Your task to perform on an android device: Open my contact list Image 0: 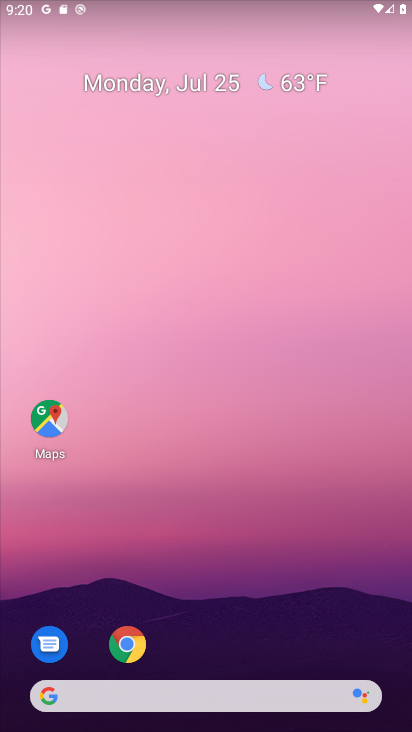
Step 0: drag from (136, 671) to (154, 208)
Your task to perform on an android device: Open my contact list Image 1: 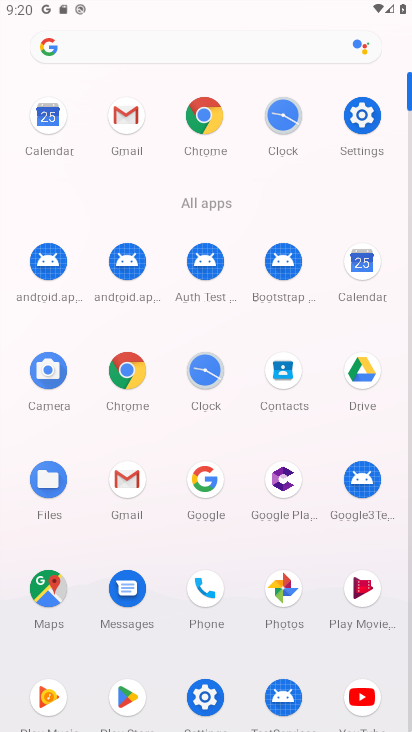
Step 1: click (281, 380)
Your task to perform on an android device: Open my contact list Image 2: 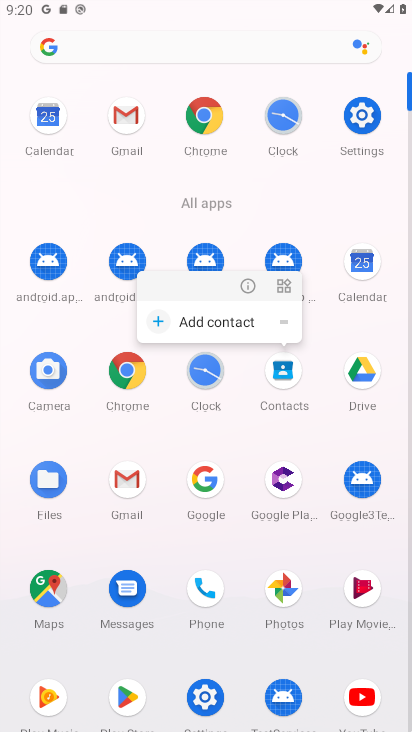
Step 2: click (290, 371)
Your task to perform on an android device: Open my contact list Image 3: 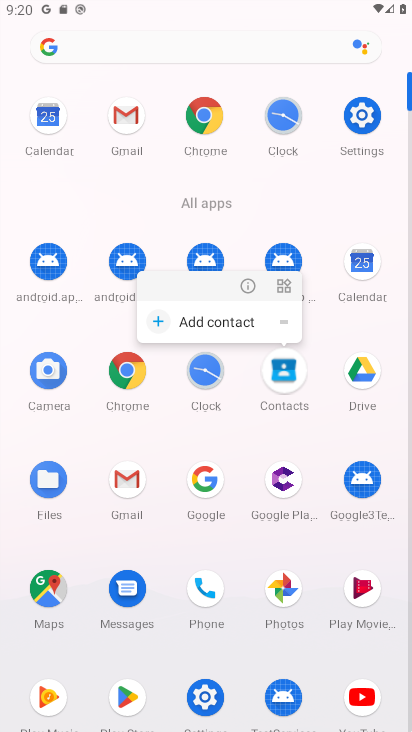
Step 3: click (290, 371)
Your task to perform on an android device: Open my contact list Image 4: 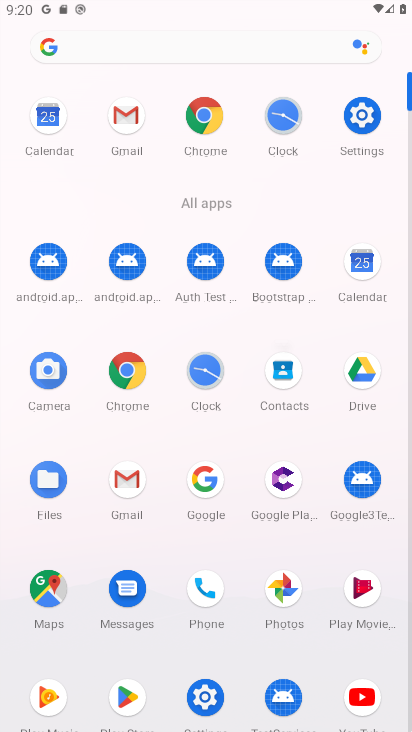
Step 4: click (290, 371)
Your task to perform on an android device: Open my contact list Image 5: 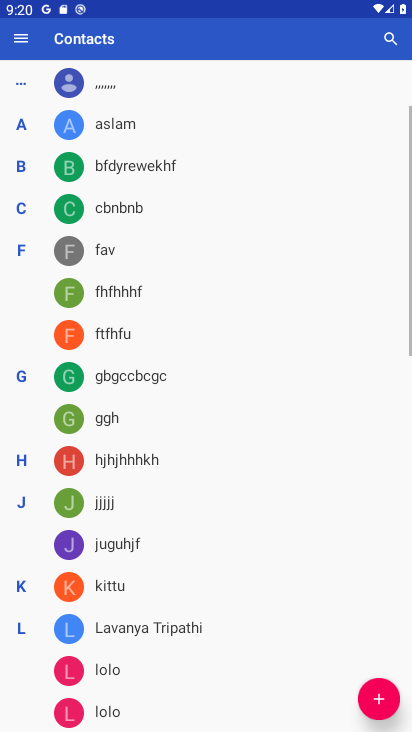
Step 5: click (290, 371)
Your task to perform on an android device: Open my contact list Image 6: 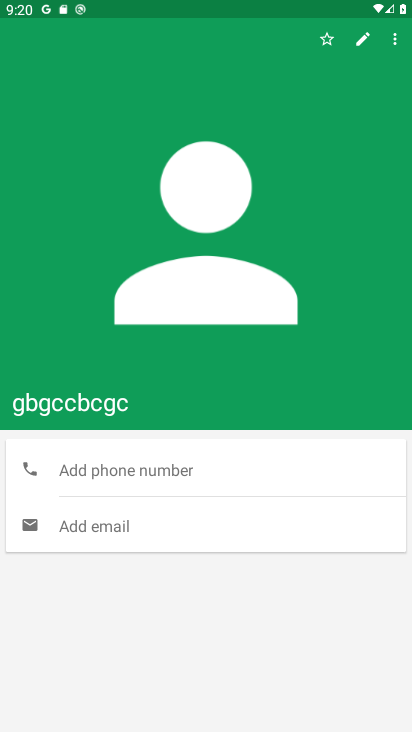
Step 6: press back button
Your task to perform on an android device: Open my contact list Image 7: 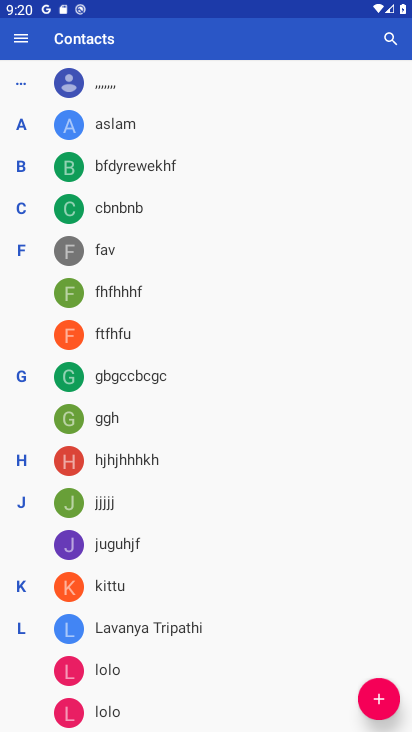
Step 7: press home button
Your task to perform on an android device: Open my contact list Image 8: 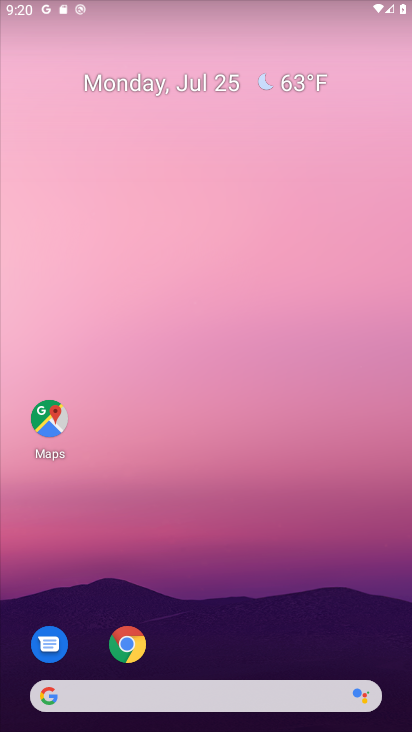
Step 8: drag from (151, 296) to (134, 225)
Your task to perform on an android device: Open my contact list Image 9: 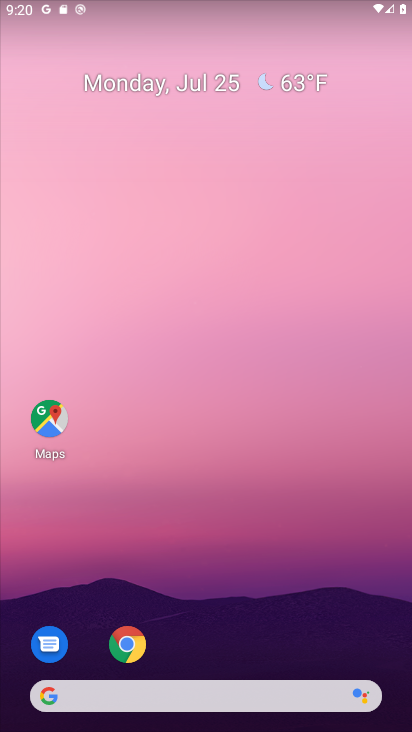
Step 9: drag from (221, 649) to (150, 244)
Your task to perform on an android device: Open my contact list Image 10: 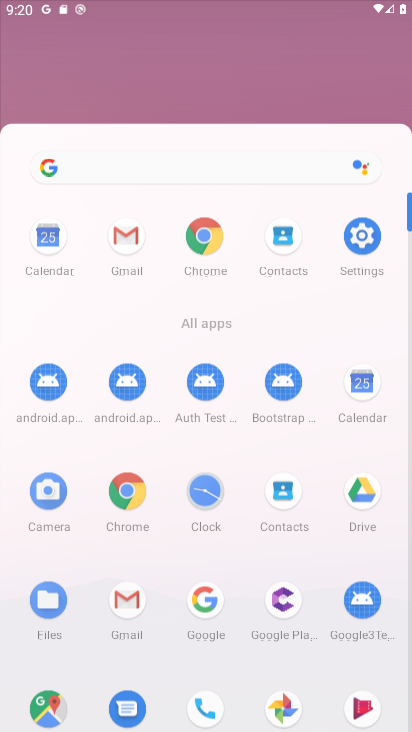
Step 10: drag from (263, 567) to (299, 311)
Your task to perform on an android device: Open my contact list Image 11: 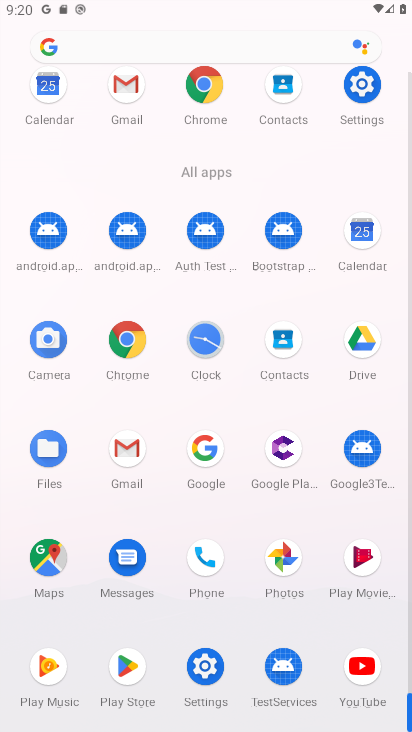
Step 11: click (282, 344)
Your task to perform on an android device: Open my contact list Image 12: 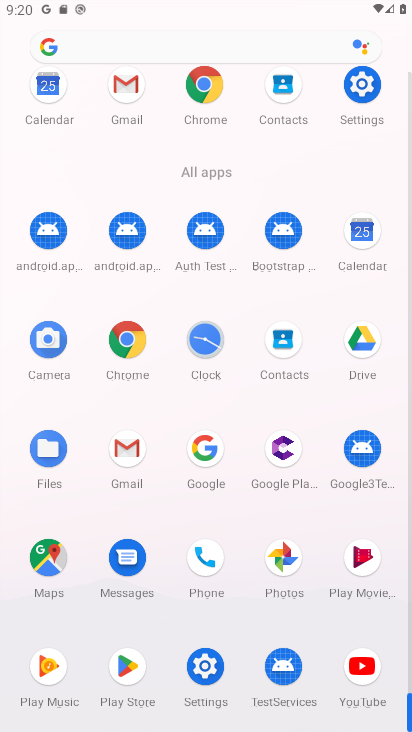
Step 12: click (281, 344)
Your task to perform on an android device: Open my contact list Image 13: 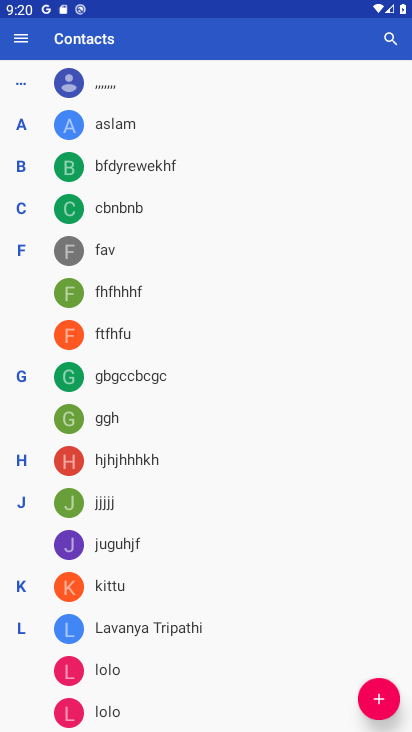
Step 13: task complete